Your task to perform on an android device: allow cookies in the chrome app Image 0: 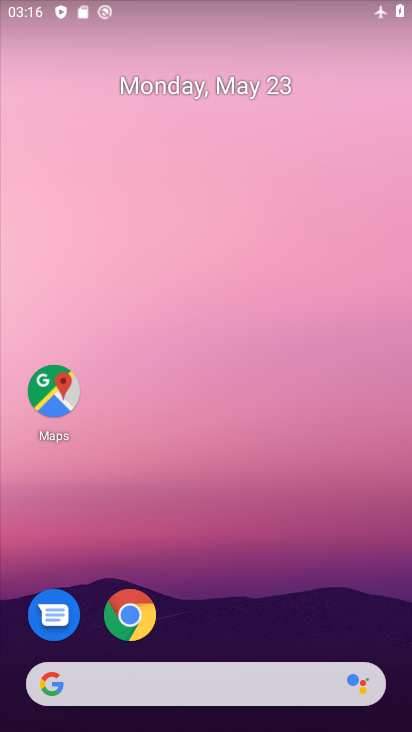
Step 0: drag from (221, 615) to (208, 242)
Your task to perform on an android device: allow cookies in the chrome app Image 1: 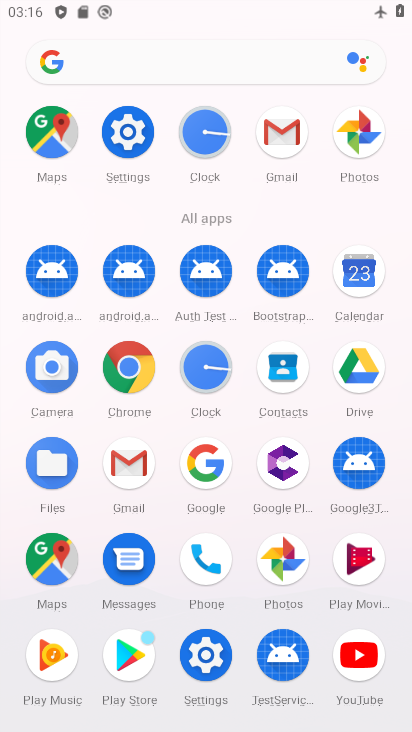
Step 1: click (116, 354)
Your task to perform on an android device: allow cookies in the chrome app Image 2: 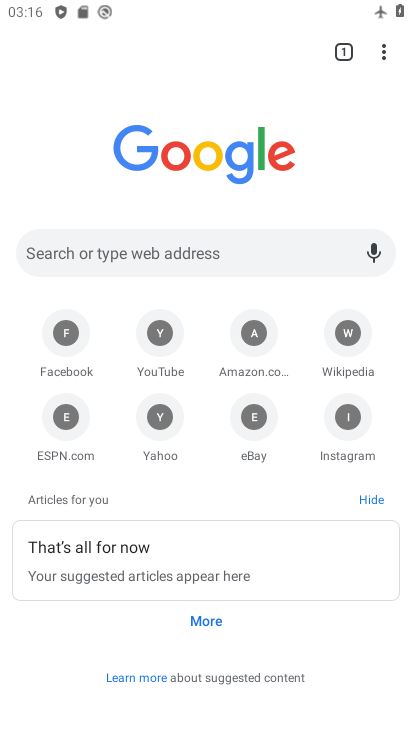
Step 2: click (381, 34)
Your task to perform on an android device: allow cookies in the chrome app Image 3: 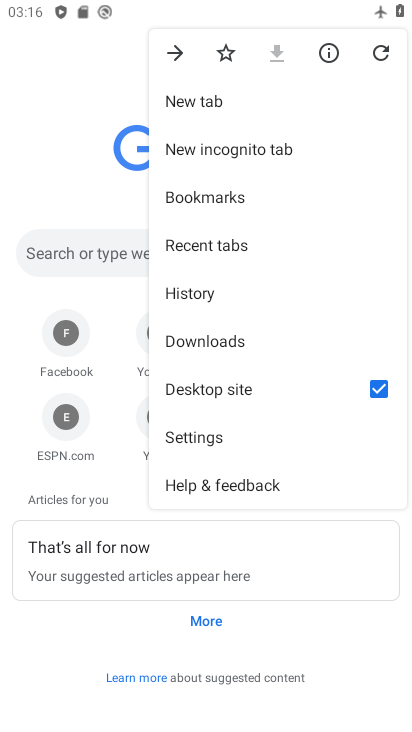
Step 3: click (223, 436)
Your task to perform on an android device: allow cookies in the chrome app Image 4: 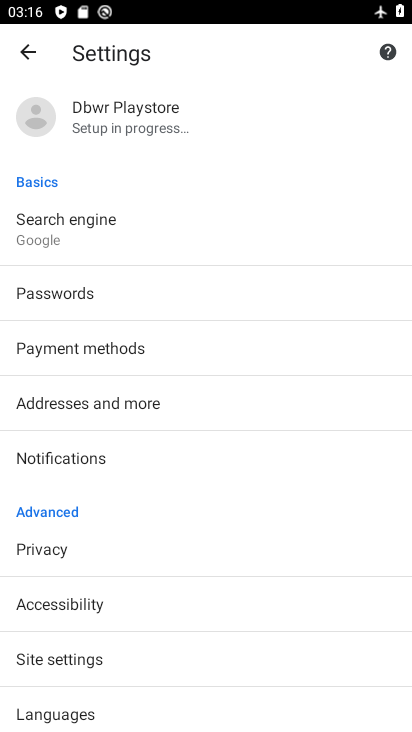
Step 4: drag from (174, 619) to (208, 444)
Your task to perform on an android device: allow cookies in the chrome app Image 5: 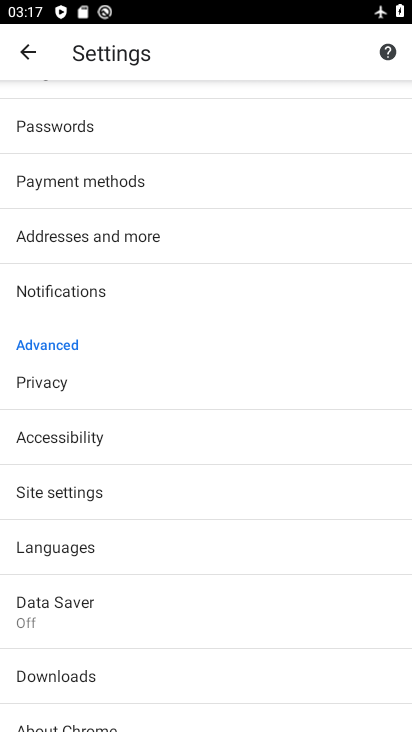
Step 5: click (129, 494)
Your task to perform on an android device: allow cookies in the chrome app Image 6: 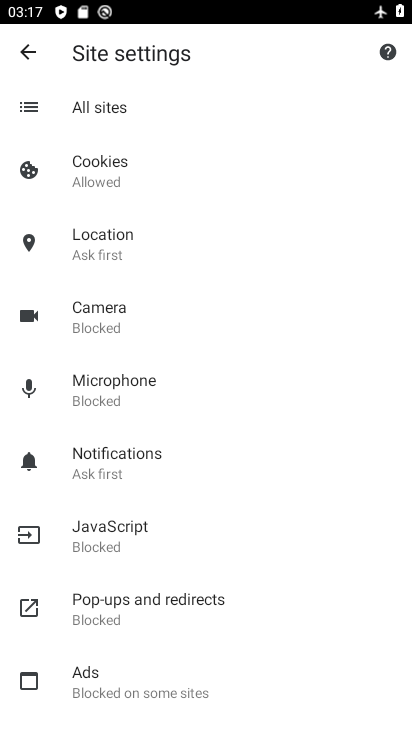
Step 6: click (157, 150)
Your task to perform on an android device: allow cookies in the chrome app Image 7: 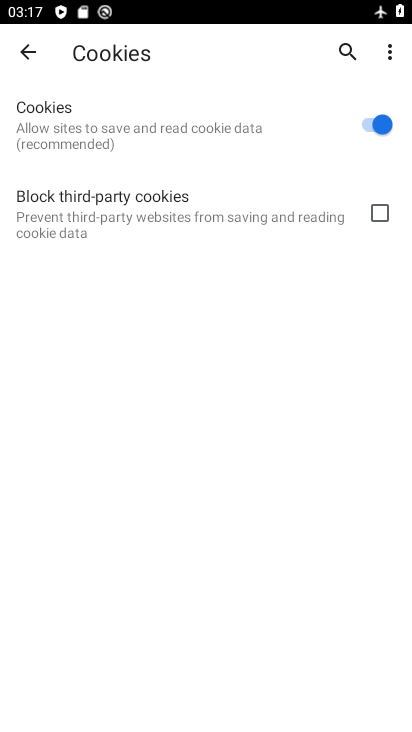
Step 7: task complete